Your task to perform on an android device: Go to calendar. Show me events next week Image 0: 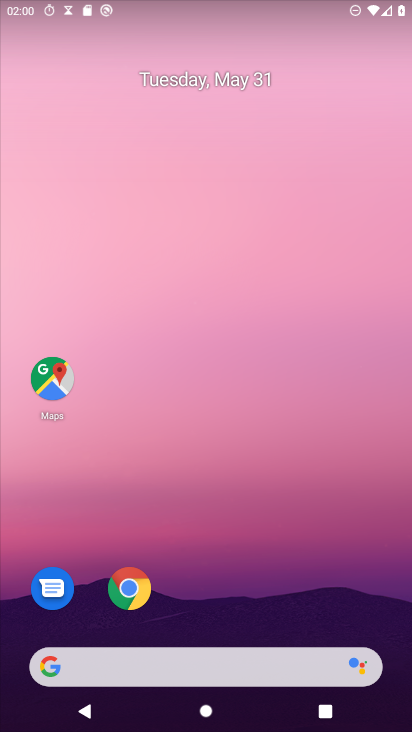
Step 0: drag from (295, 670) to (329, 12)
Your task to perform on an android device: Go to calendar. Show me events next week Image 1: 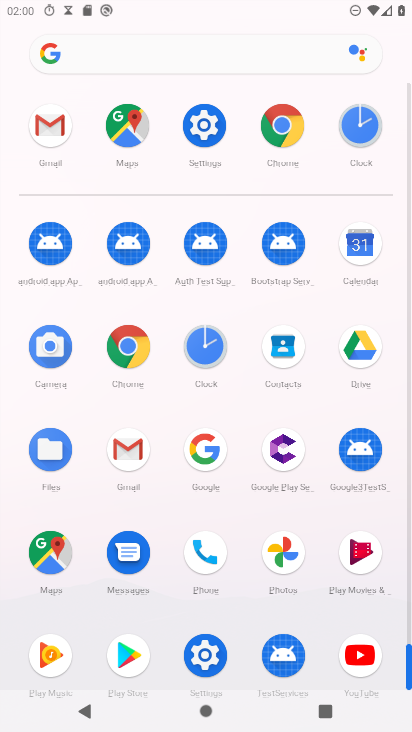
Step 1: click (370, 246)
Your task to perform on an android device: Go to calendar. Show me events next week Image 2: 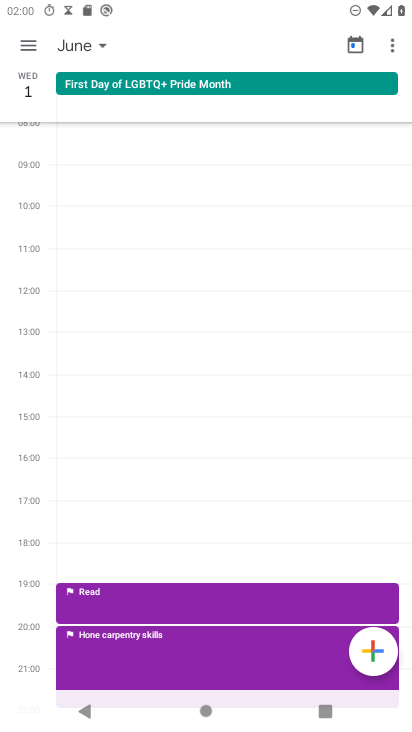
Step 2: click (101, 43)
Your task to perform on an android device: Go to calendar. Show me events next week Image 3: 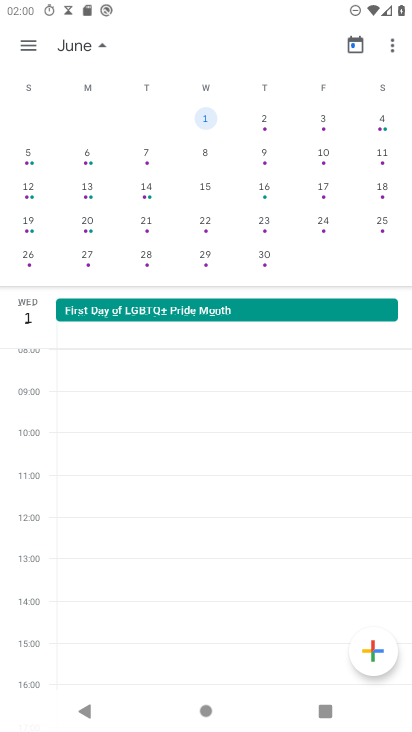
Step 3: click (353, 222)
Your task to perform on an android device: Go to calendar. Show me events next week Image 4: 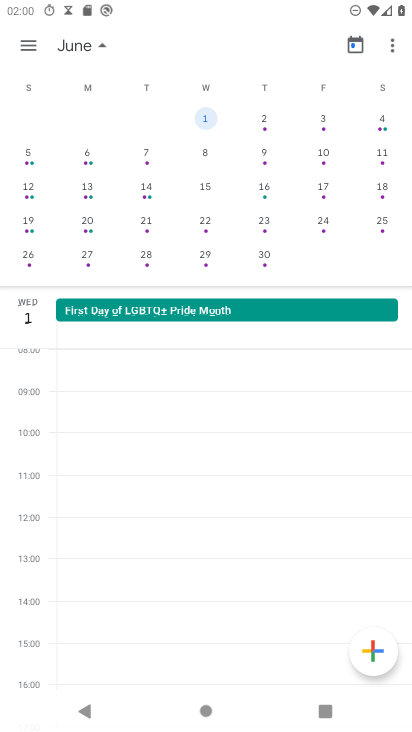
Step 4: click (208, 155)
Your task to perform on an android device: Go to calendar. Show me events next week Image 5: 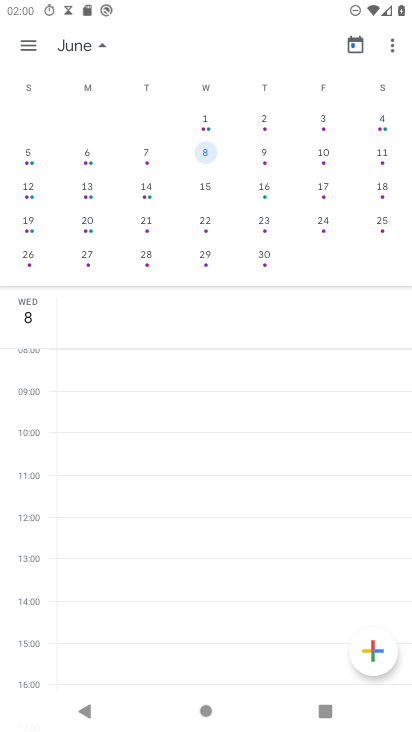
Step 5: click (30, 46)
Your task to perform on an android device: Go to calendar. Show me events next week Image 6: 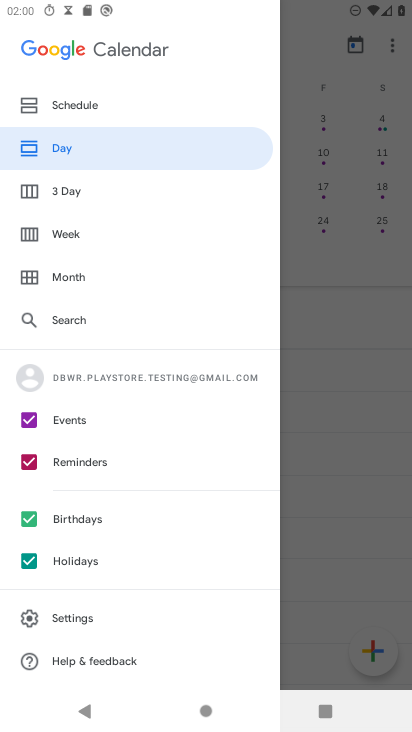
Step 6: click (75, 233)
Your task to perform on an android device: Go to calendar. Show me events next week Image 7: 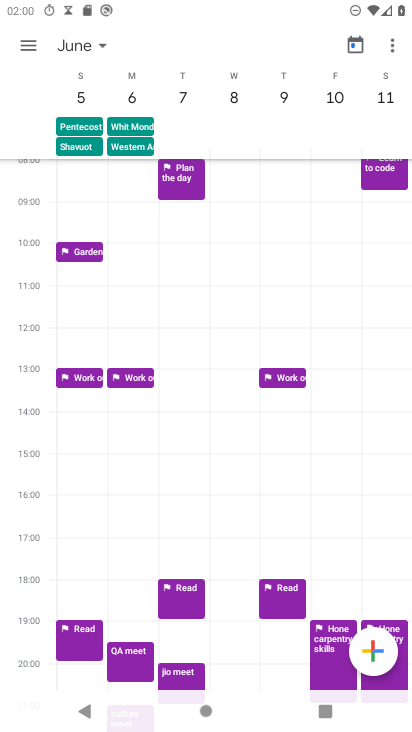
Step 7: task complete